Your task to perform on an android device: What's the weather like in Chicago? Image 0: 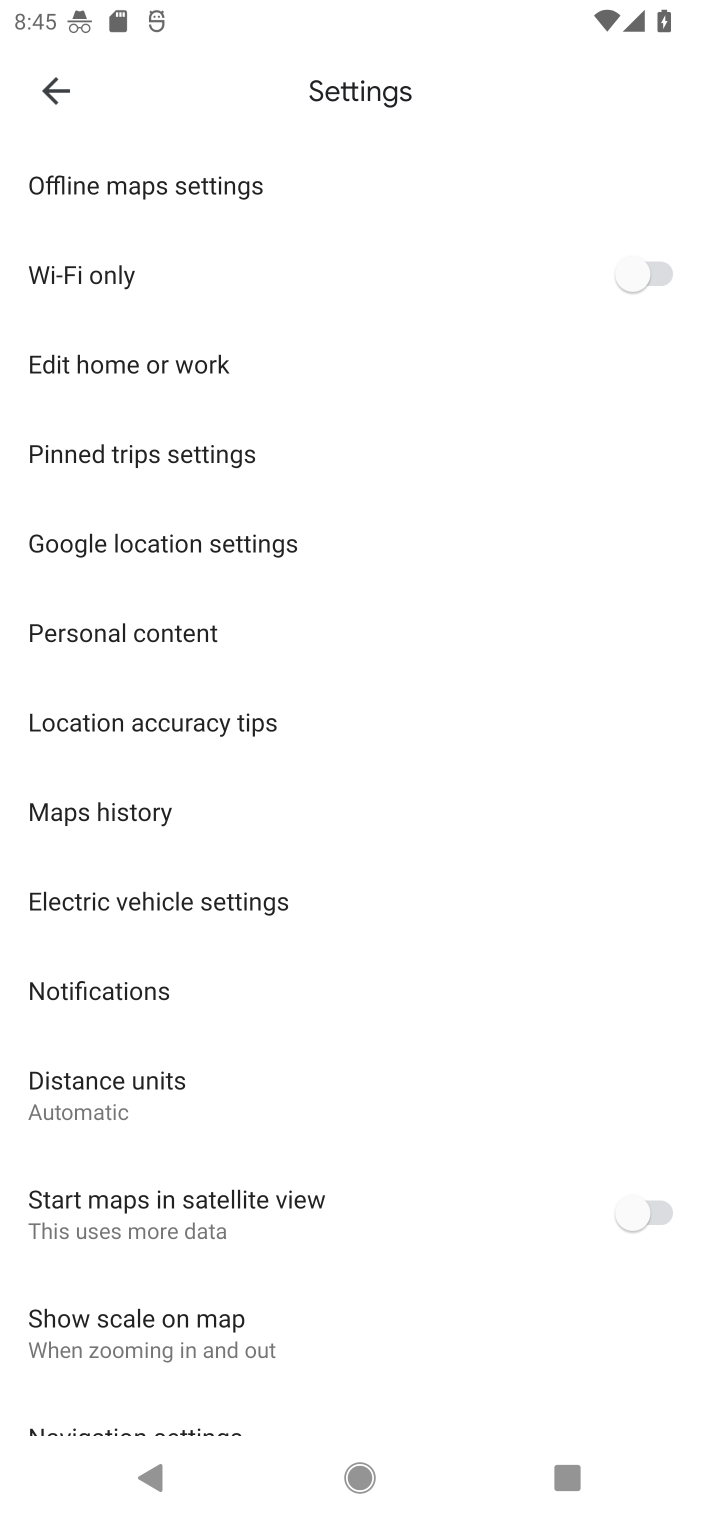
Step 0: press home button
Your task to perform on an android device: What's the weather like in Chicago? Image 1: 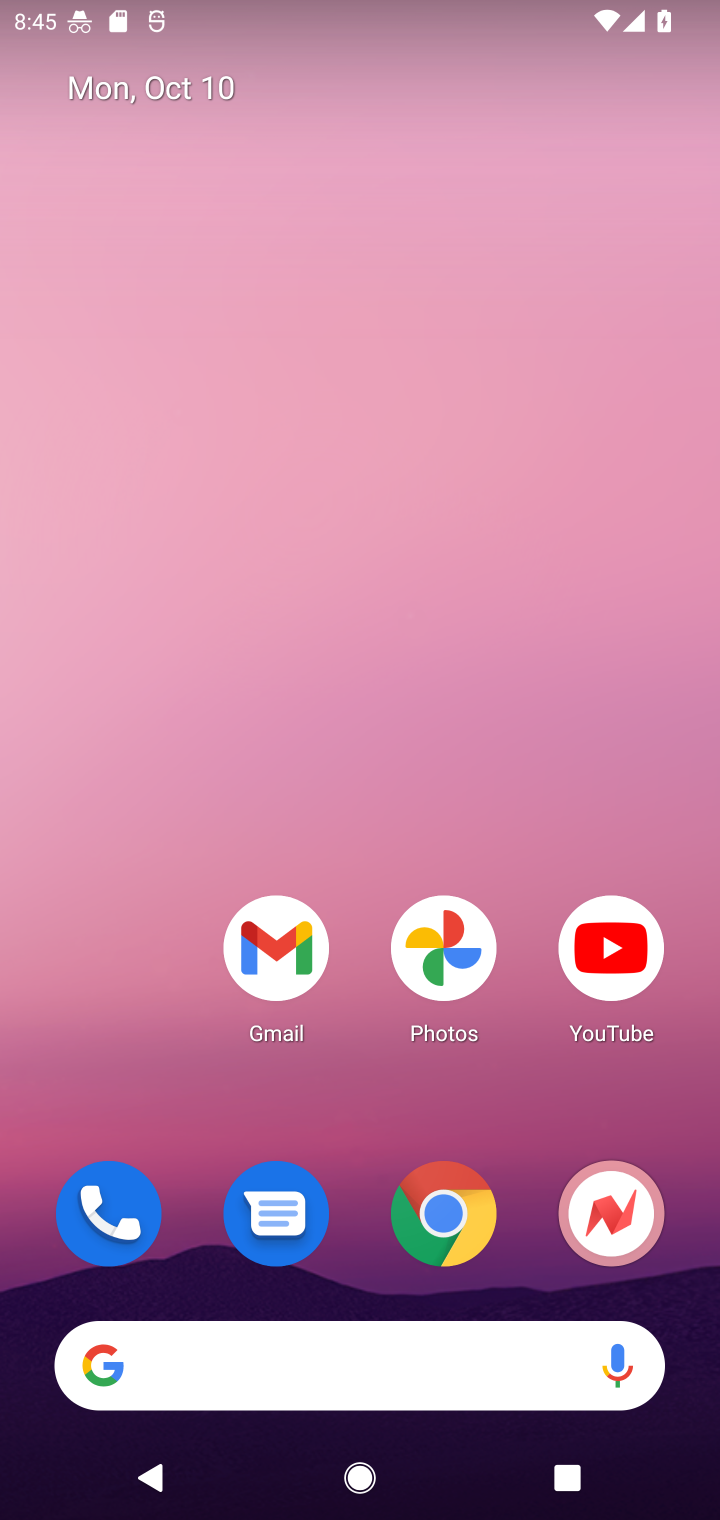
Step 1: click (250, 1380)
Your task to perform on an android device: What's the weather like in Chicago? Image 2: 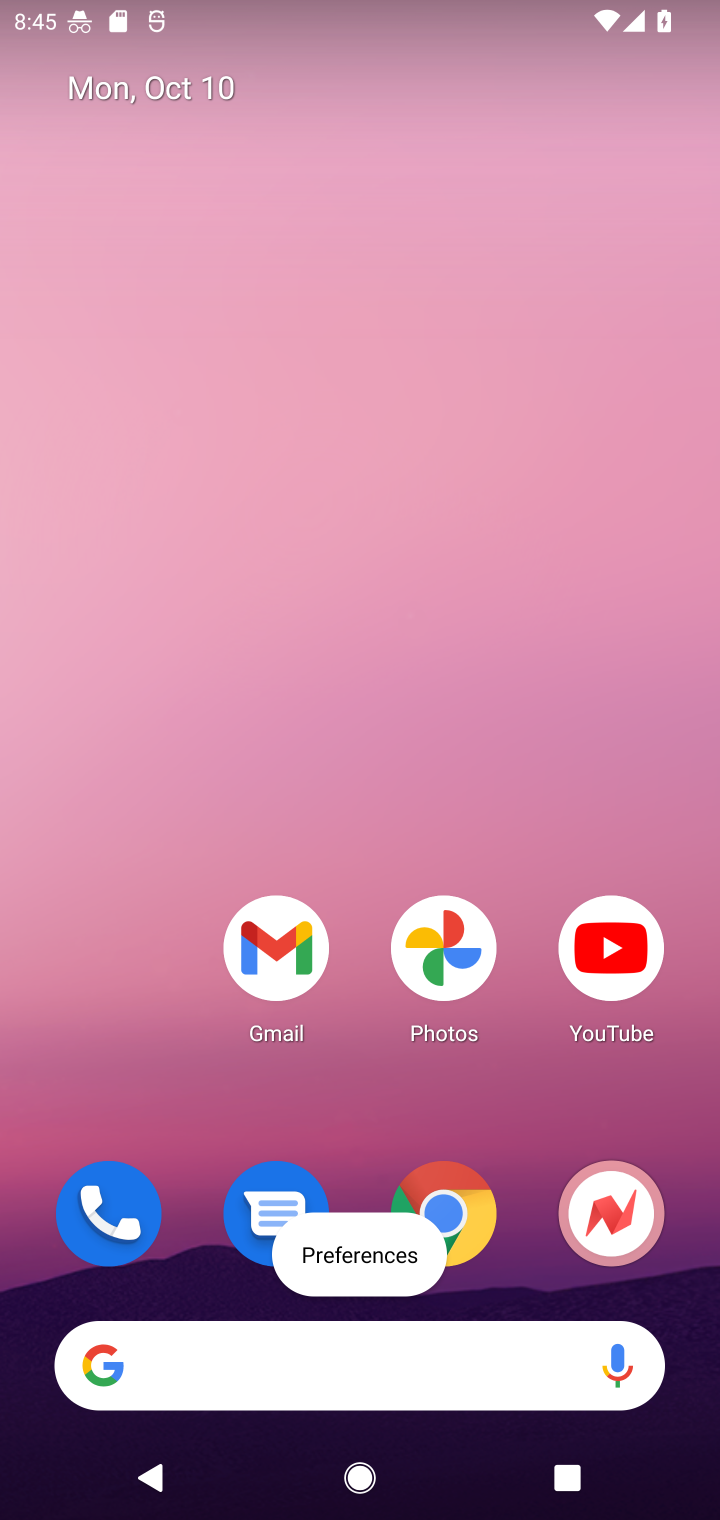
Step 2: click (316, 1345)
Your task to perform on an android device: What's the weather like in Chicago? Image 3: 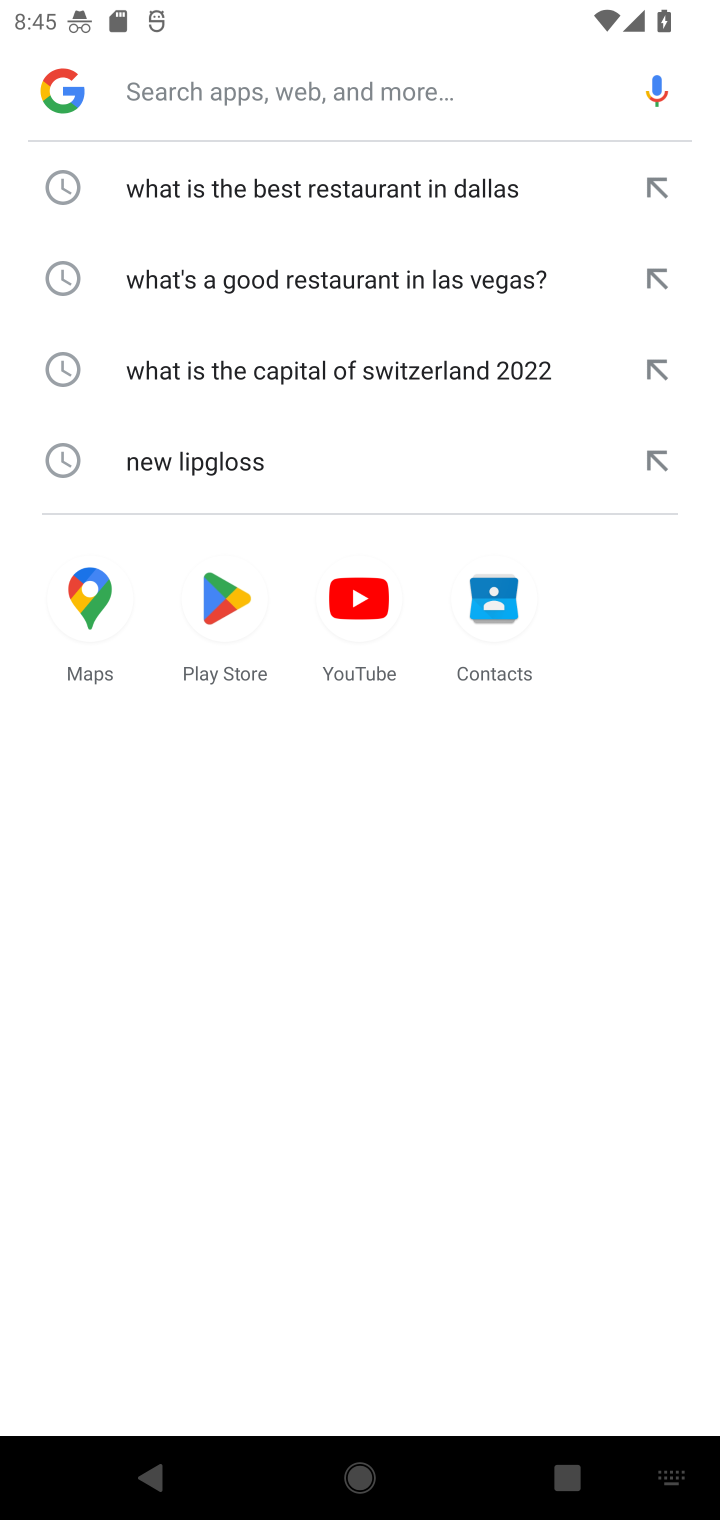
Step 3: click (200, 101)
Your task to perform on an android device: What's the weather like in Chicago? Image 4: 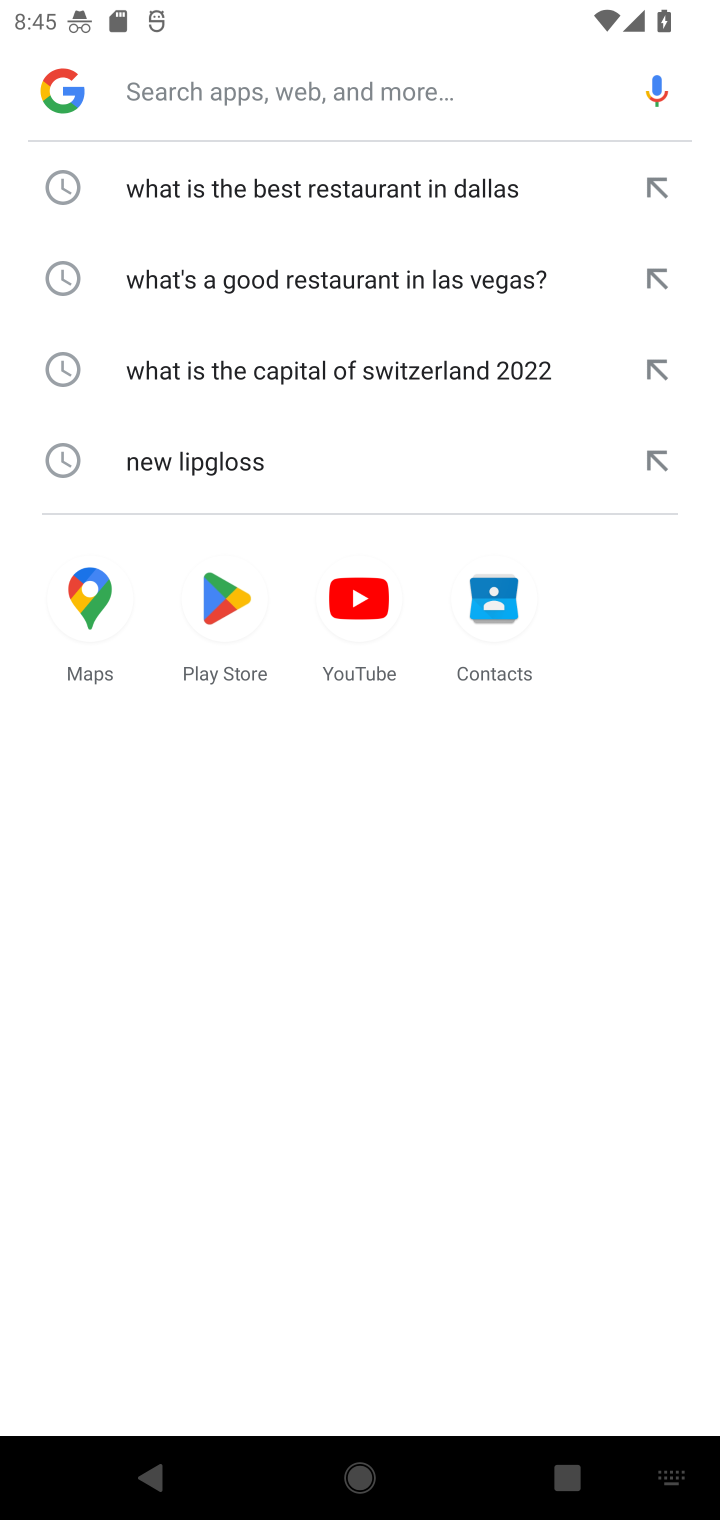
Step 4: type "What's the weather like in Chicago?"
Your task to perform on an android device: What's the weather like in Chicago? Image 5: 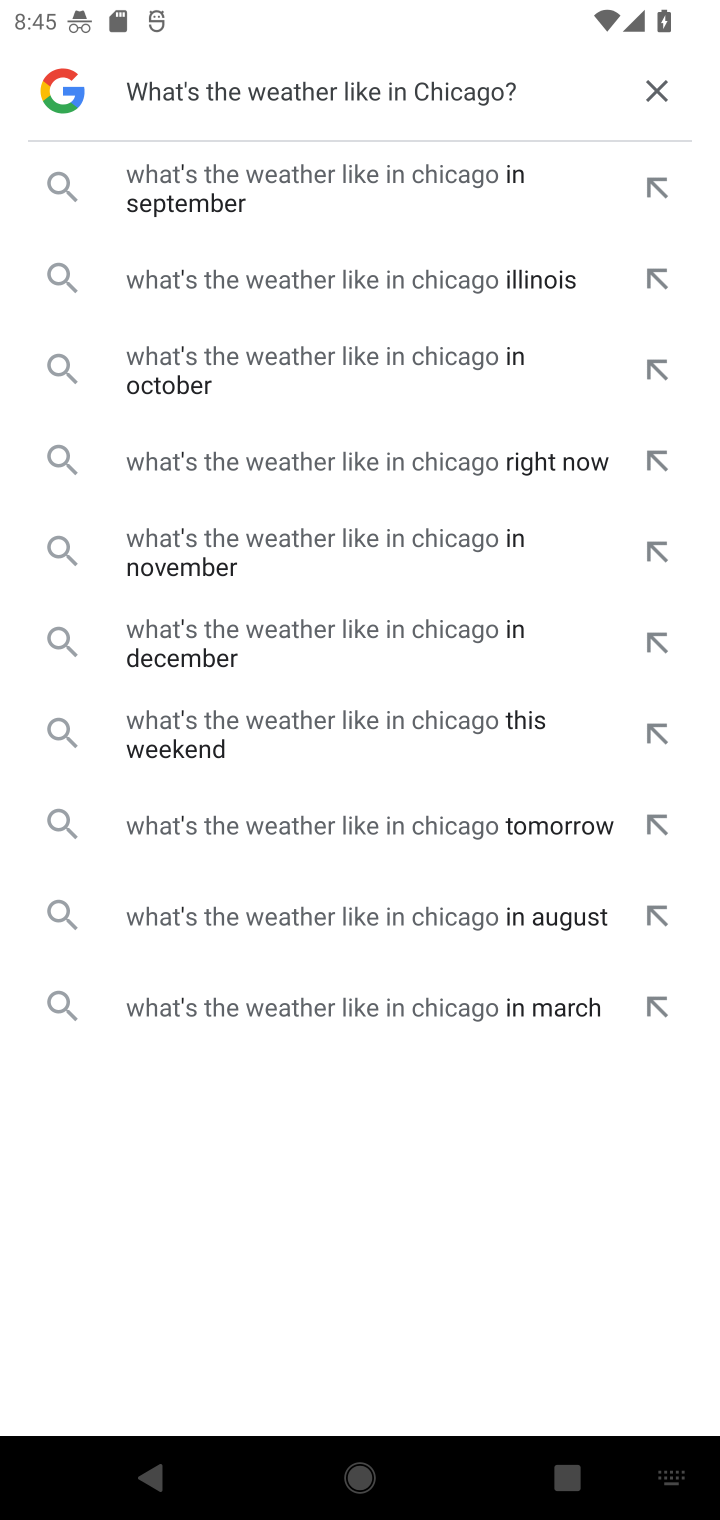
Step 5: click (323, 273)
Your task to perform on an android device: What's the weather like in Chicago? Image 6: 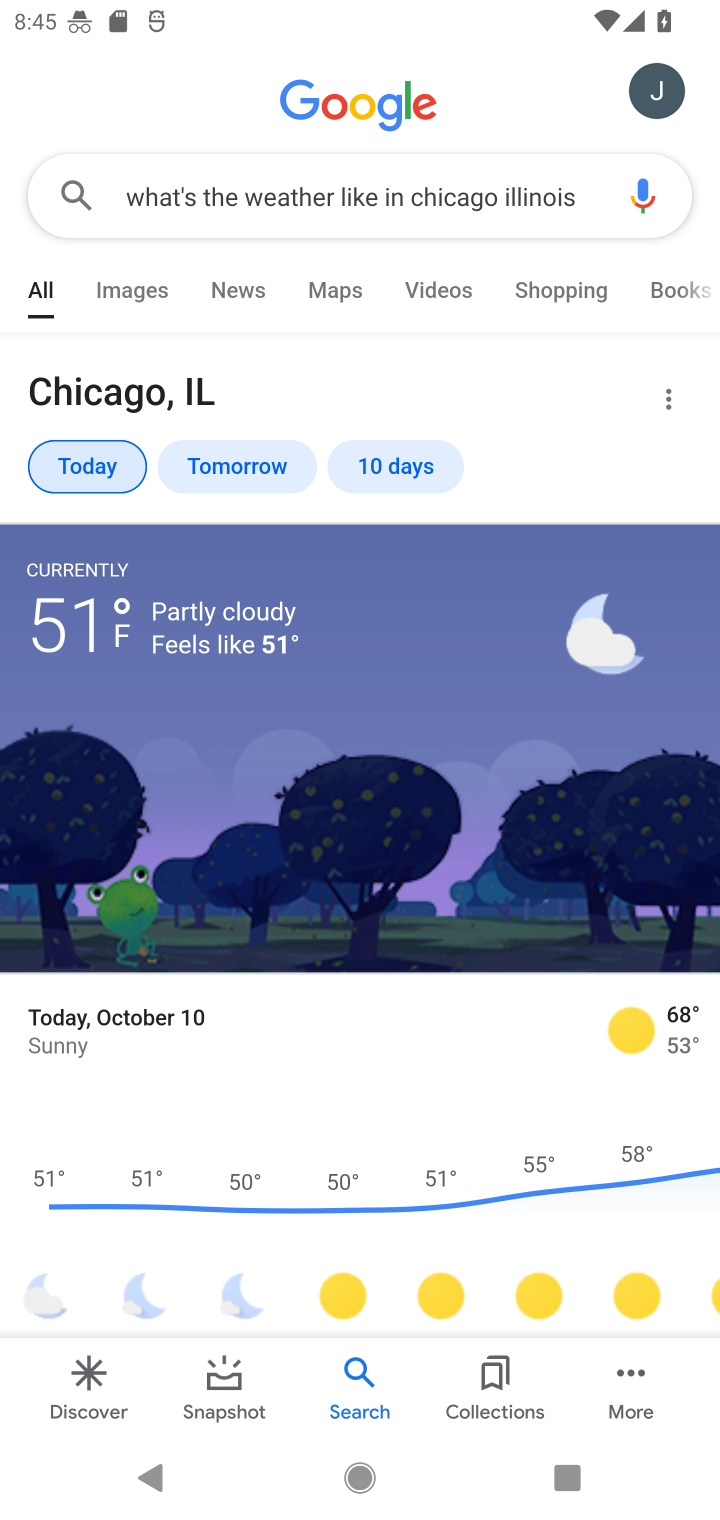
Step 6: task complete